Your task to perform on an android device: Go to calendar. Show me events next week Image 0: 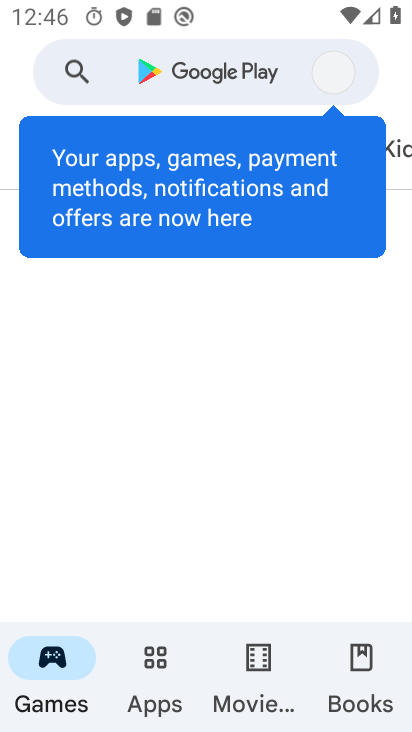
Step 0: press back button
Your task to perform on an android device: Go to calendar. Show me events next week Image 1: 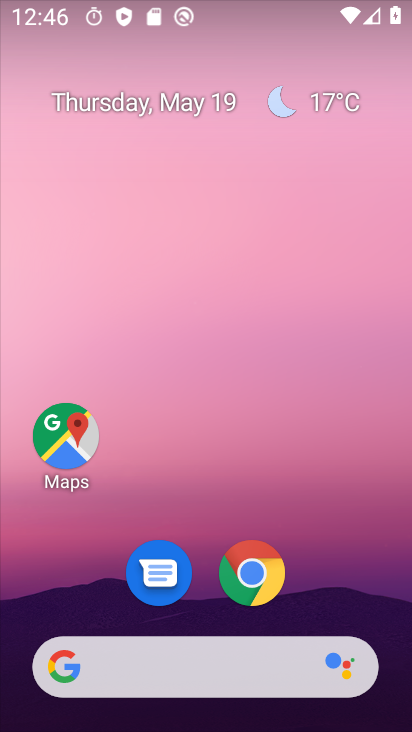
Step 1: drag from (248, 616) to (322, 36)
Your task to perform on an android device: Go to calendar. Show me events next week Image 2: 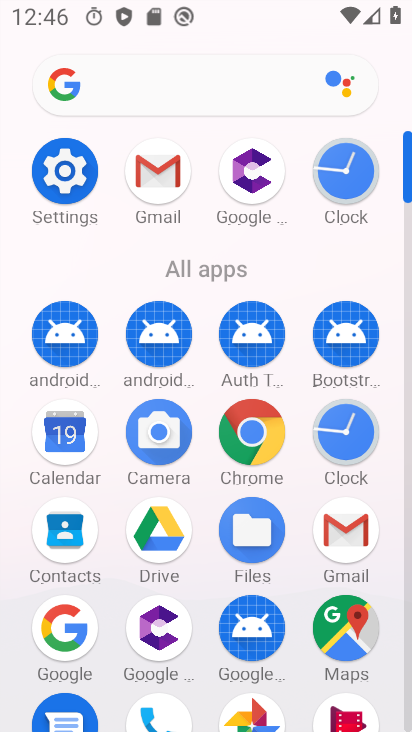
Step 2: click (65, 466)
Your task to perform on an android device: Go to calendar. Show me events next week Image 3: 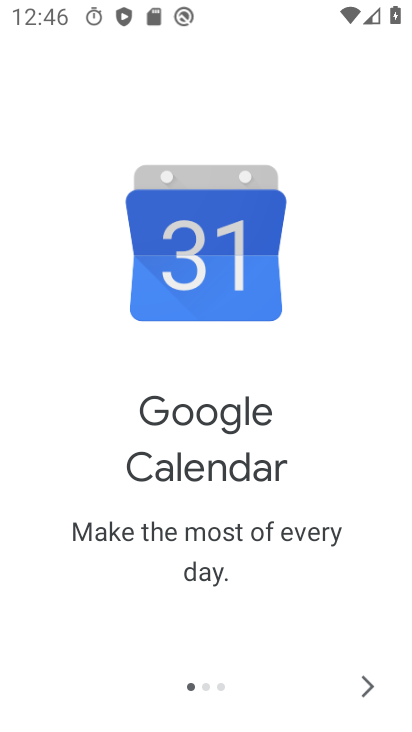
Step 3: click (372, 689)
Your task to perform on an android device: Go to calendar. Show me events next week Image 4: 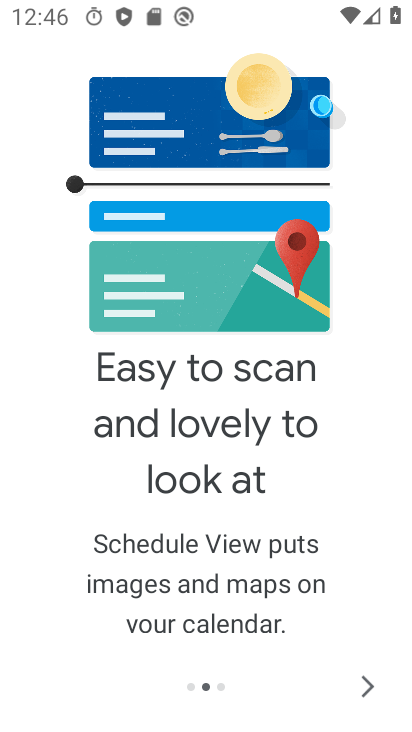
Step 4: click (372, 689)
Your task to perform on an android device: Go to calendar. Show me events next week Image 5: 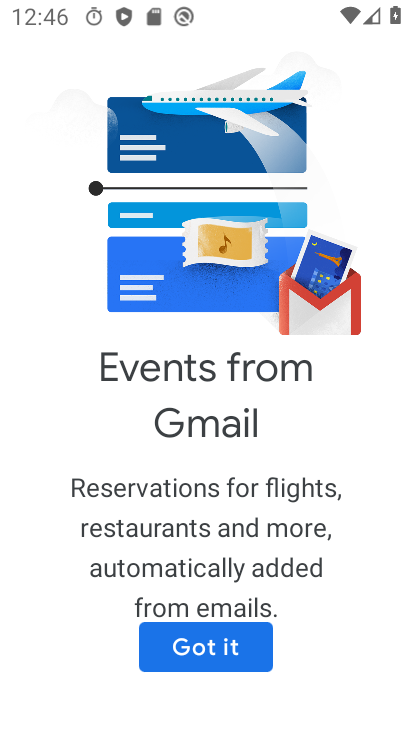
Step 5: click (194, 651)
Your task to perform on an android device: Go to calendar. Show me events next week Image 6: 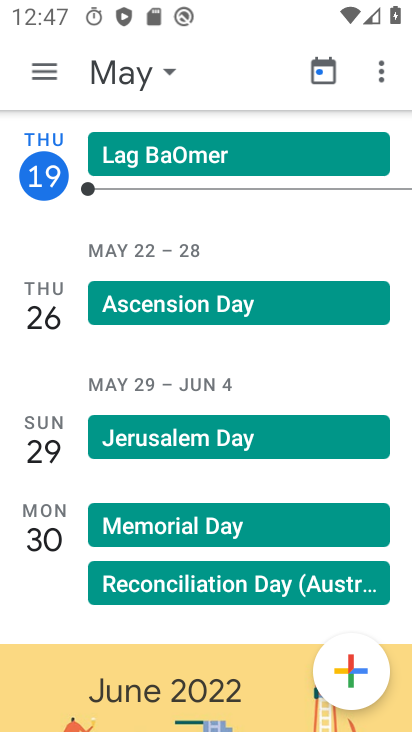
Step 6: click (146, 72)
Your task to perform on an android device: Go to calendar. Show me events next week Image 7: 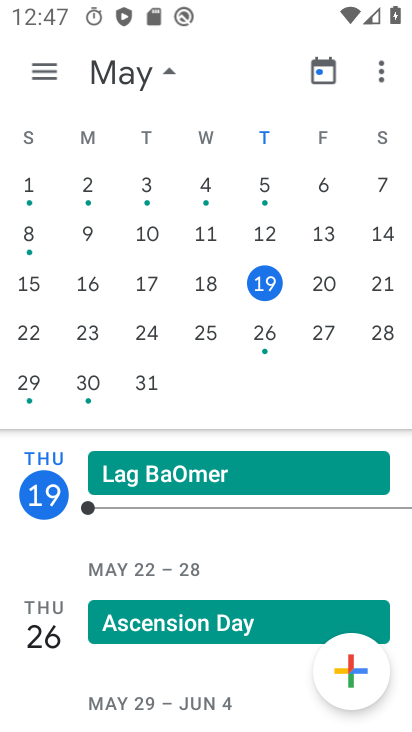
Step 7: click (87, 336)
Your task to perform on an android device: Go to calendar. Show me events next week Image 8: 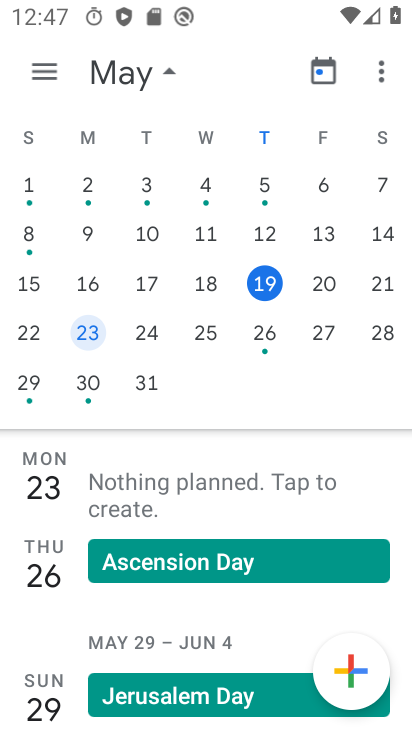
Step 8: drag from (157, 637) to (245, 221)
Your task to perform on an android device: Go to calendar. Show me events next week Image 9: 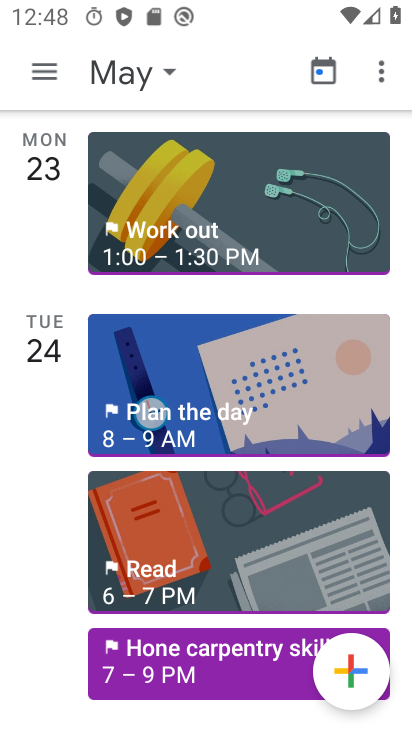
Step 9: click (192, 398)
Your task to perform on an android device: Go to calendar. Show me events next week Image 10: 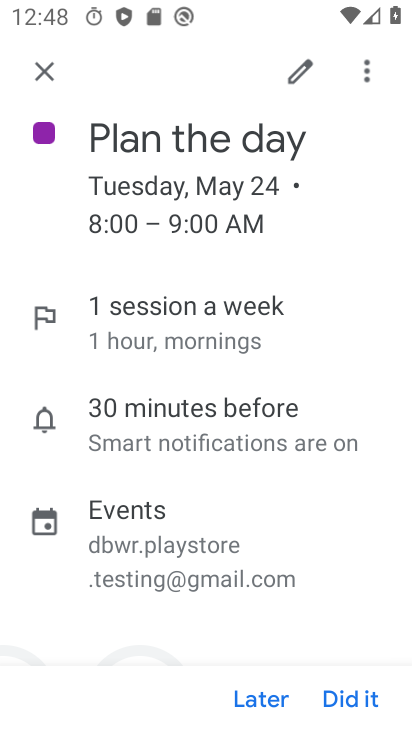
Step 10: task complete